Your task to perform on an android device: Go to notification settings Image 0: 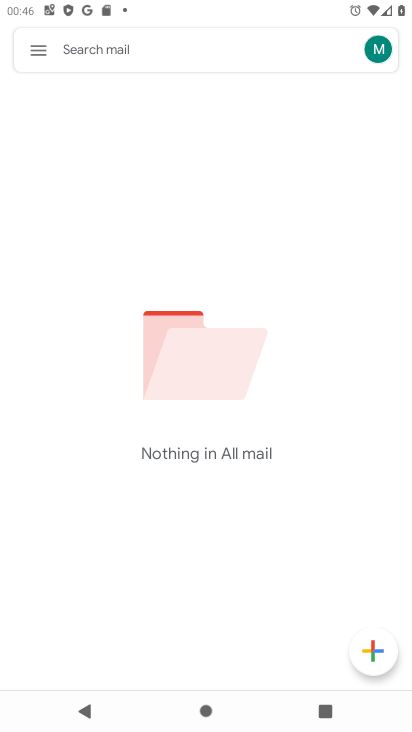
Step 0: press home button
Your task to perform on an android device: Go to notification settings Image 1: 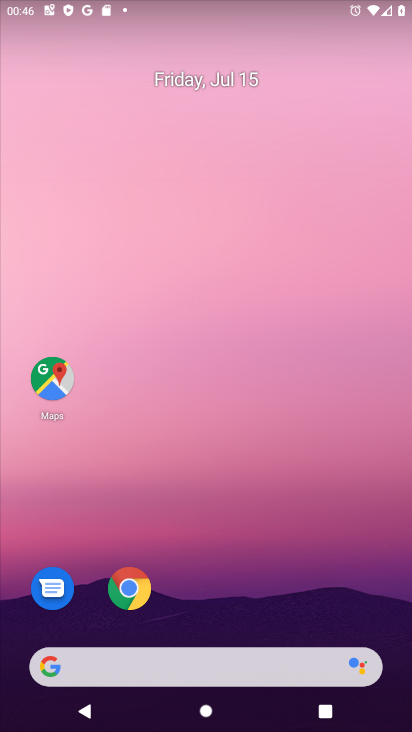
Step 1: drag from (185, 672) to (293, 210)
Your task to perform on an android device: Go to notification settings Image 2: 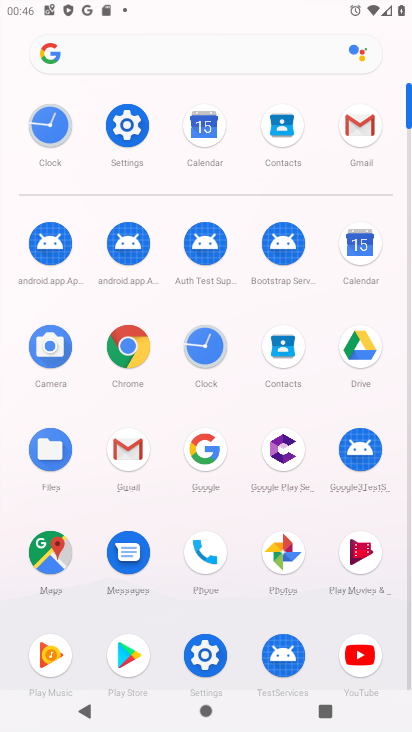
Step 2: click (125, 129)
Your task to perform on an android device: Go to notification settings Image 3: 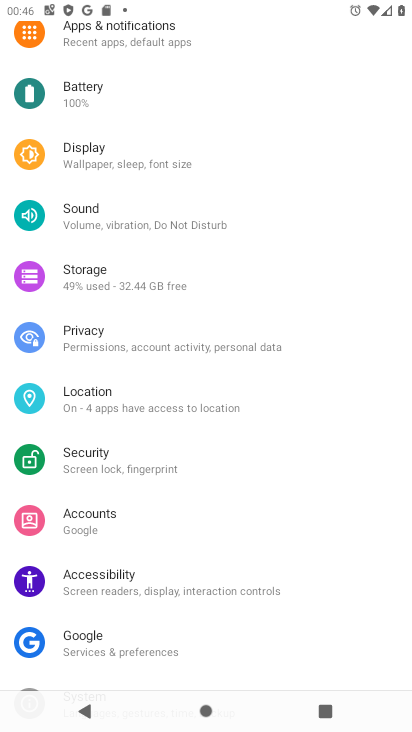
Step 3: click (120, 34)
Your task to perform on an android device: Go to notification settings Image 4: 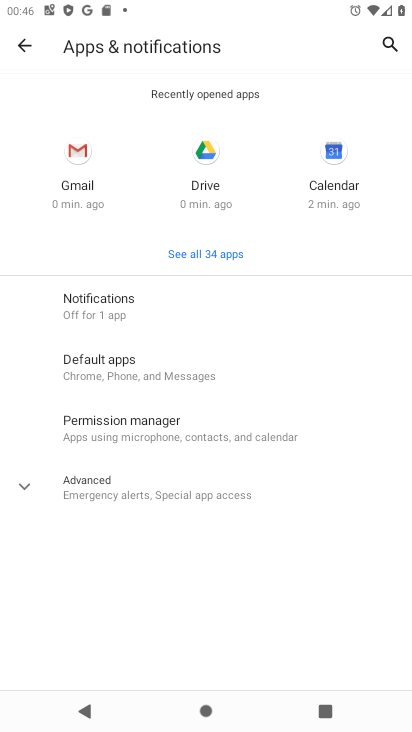
Step 4: click (122, 307)
Your task to perform on an android device: Go to notification settings Image 5: 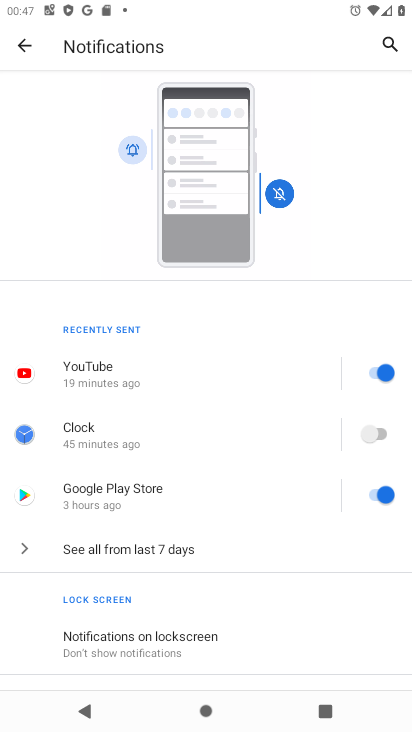
Step 5: task complete